Your task to perform on an android device: empty trash in the gmail app Image 0: 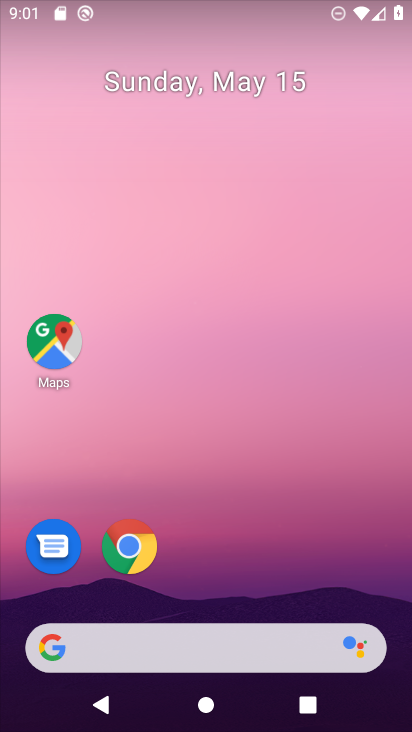
Step 0: drag from (268, 514) to (245, 93)
Your task to perform on an android device: empty trash in the gmail app Image 1: 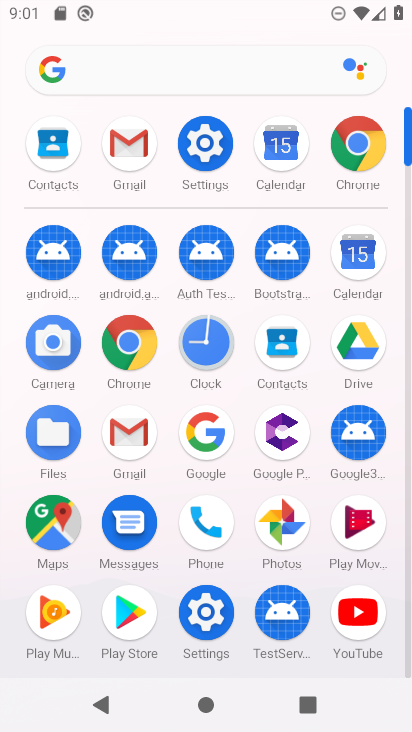
Step 1: click (126, 140)
Your task to perform on an android device: empty trash in the gmail app Image 2: 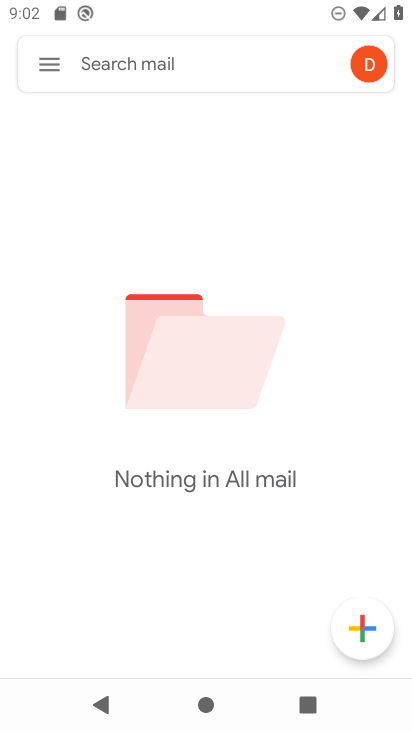
Step 2: click (49, 68)
Your task to perform on an android device: empty trash in the gmail app Image 3: 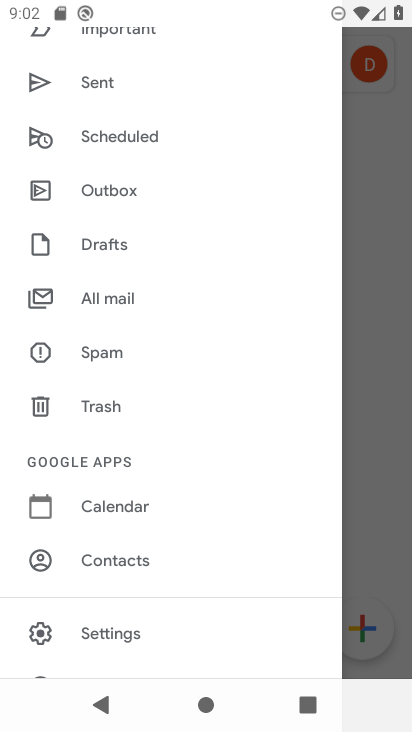
Step 3: click (156, 394)
Your task to perform on an android device: empty trash in the gmail app Image 4: 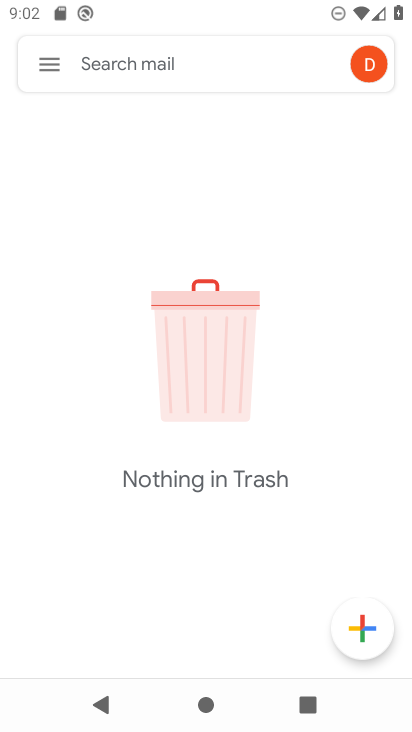
Step 4: task complete